Your task to perform on an android device: clear history in the chrome app Image 0: 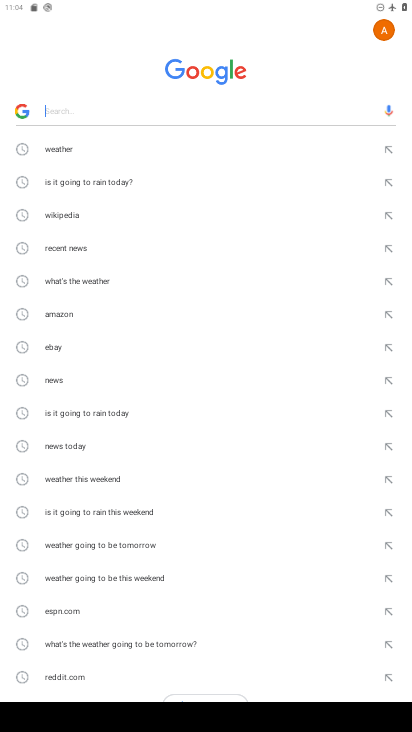
Step 0: press home button
Your task to perform on an android device: clear history in the chrome app Image 1: 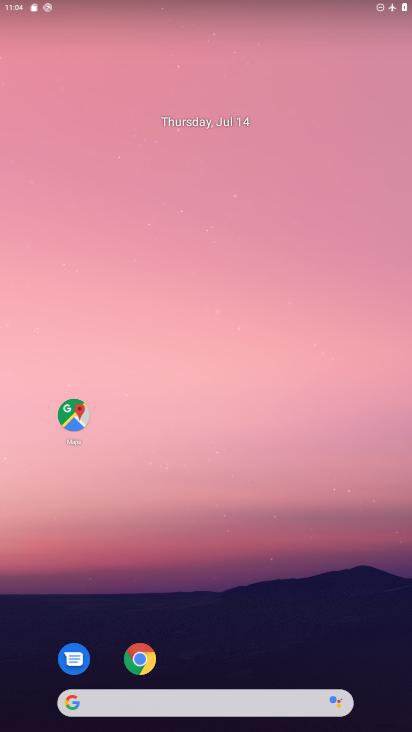
Step 1: drag from (237, 628) to (213, 115)
Your task to perform on an android device: clear history in the chrome app Image 2: 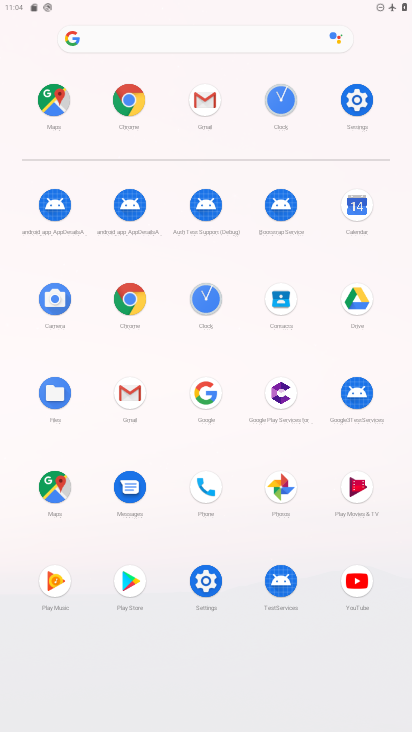
Step 2: click (130, 303)
Your task to perform on an android device: clear history in the chrome app Image 3: 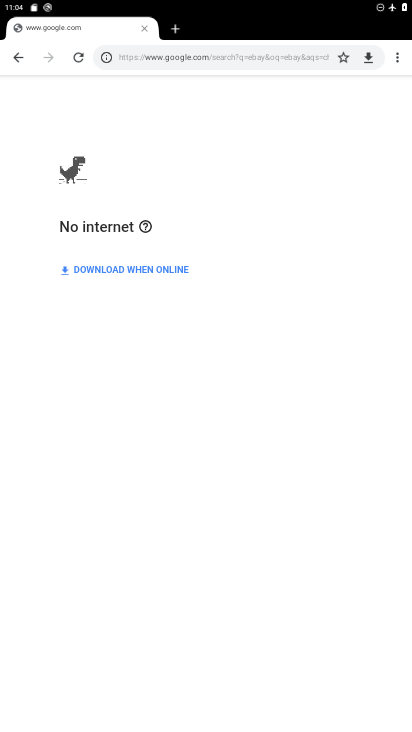
Step 3: task complete